Your task to perform on an android device: Do I have any events tomorrow? Image 0: 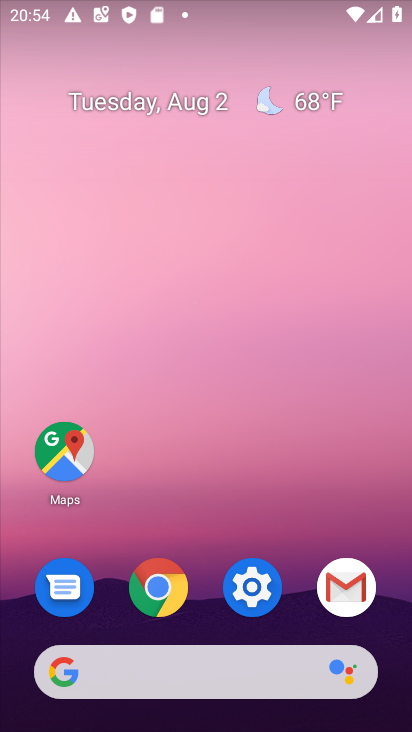
Step 0: press home button
Your task to perform on an android device: Do I have any events tomorrow? Image 1: 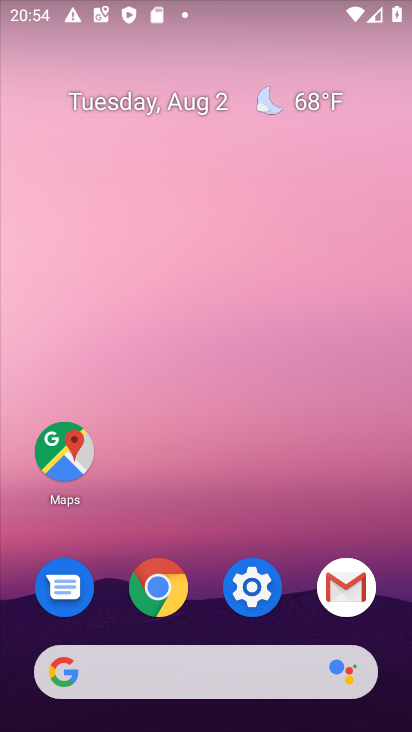
Step 1: drag from (141, 354) to (87, 5)
Your task to perform on an android device: Do I have any events tomorrow? Image 2: 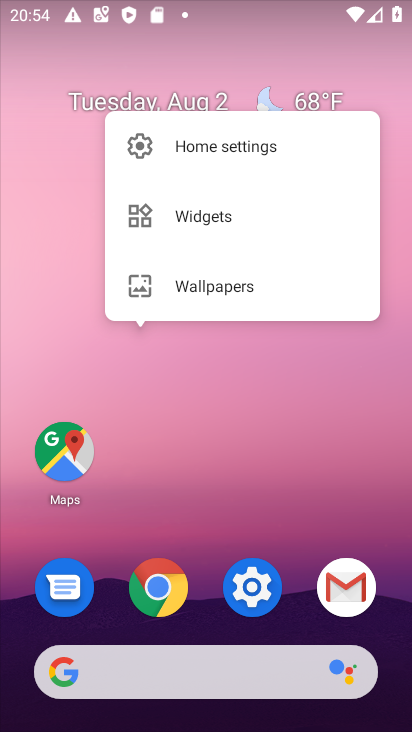
Step 2: click (260, 481)
Your task to perform on an android device: Do I have any events tomorrow? Image 3: 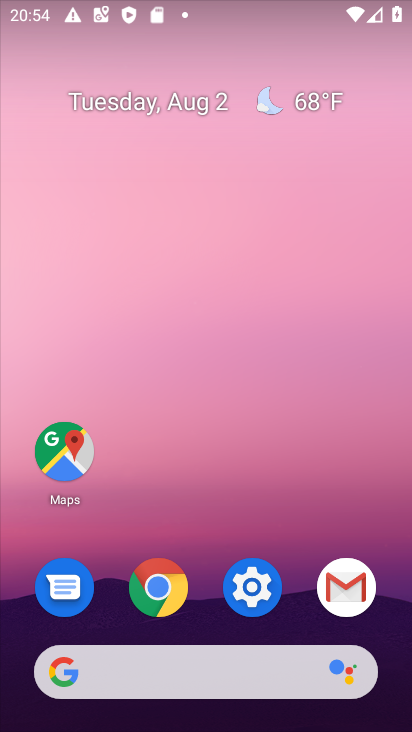
Step 3: drag from (153, 698) to (116, 23)
Your task to perform on an android device: Do I have any events tomorrow? Image 4: 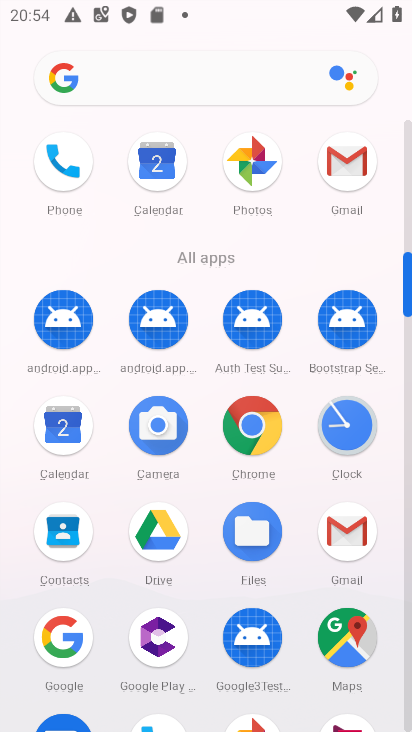
Step 4: click (60, 436)
Your task to perform on an android device: Do I have any events tomorrow? Image 5: 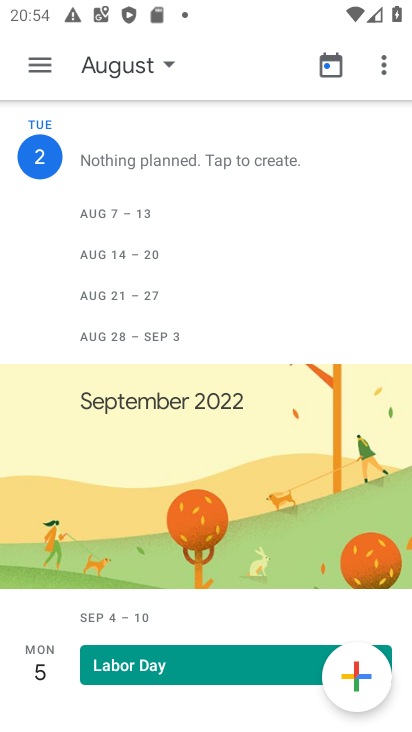
Step 5: click (35, 63)
Your task to perform on an android device: Do I have any events tomorrow? Image 6: 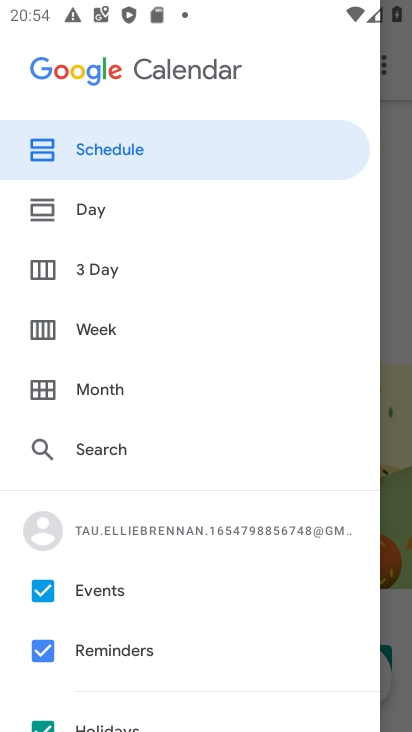
Step 6: click (97, 392)
Your task to perform on an android device: Do I have any events tomorrow? Image 7: 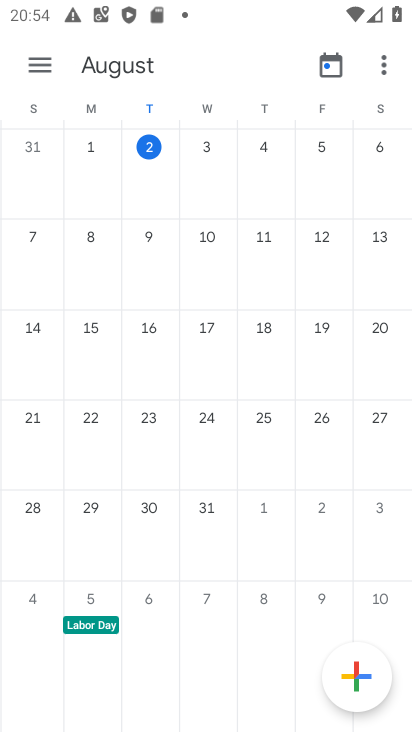
Step 7: click (194, 140)
Your task to perform on an android device: Do I have any events tomorrow? Image 8: 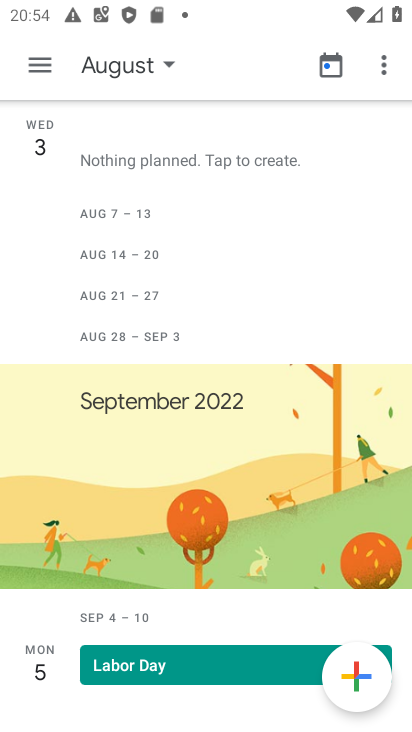
Step 8: task complete